Your task to perform on an android device: check the backup settings in the google photos Image 0: 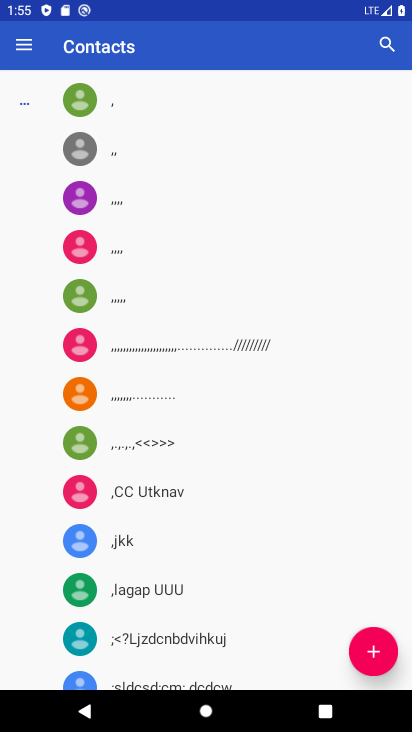
Step 0: press home button
Your task to perform on an android device: check the backup settings in the google photos Image 1: 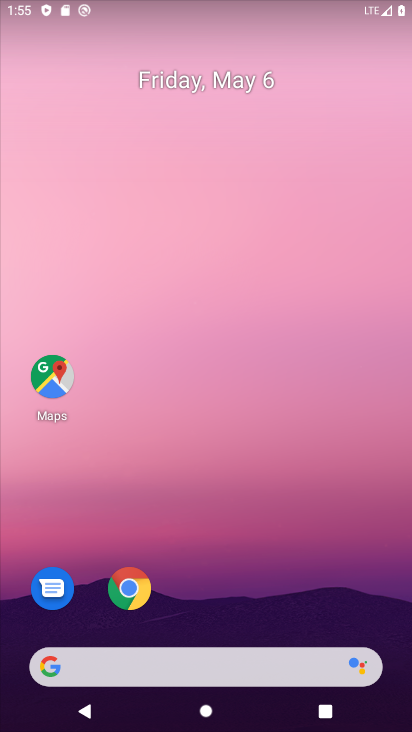
Step 1: drag from (371, 610) to (346, 162)
Your task to perform on an android device: check the backup settings in the google photos Image 2: 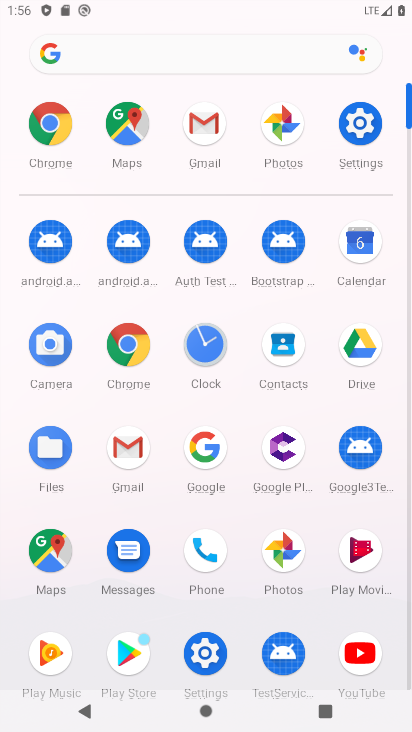
Step 2: click (275, 552)
Your task to perform on an android device: check the backup settings in the google photos Image 3: 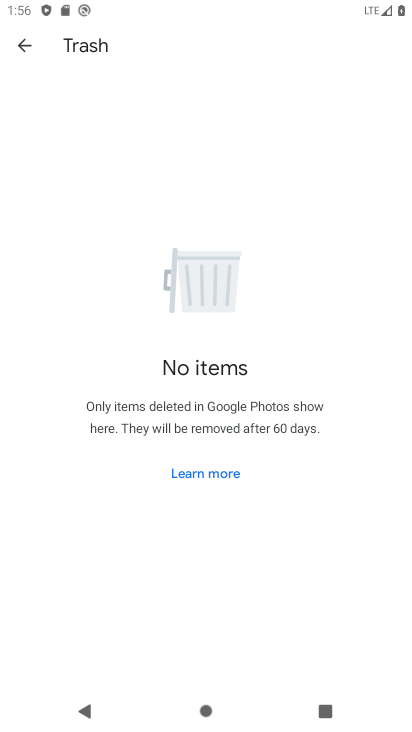
Step 3: click (28, 49)
Your task to perform on an android device: check the backup settings in the google photos Image 4: 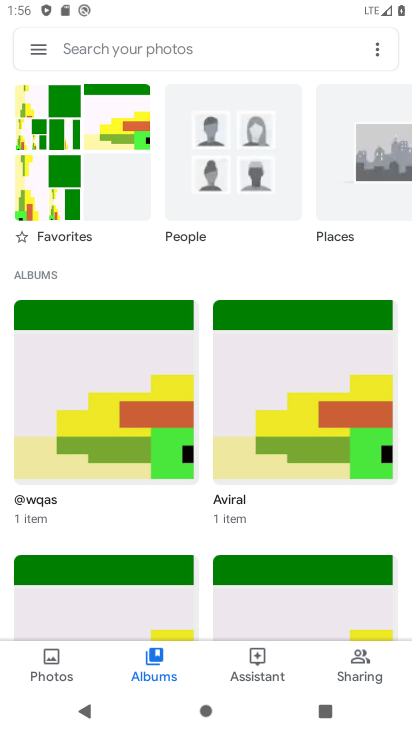
Step 4: click (34, 49)
Your task to perform on an android device: check the backup settings in the google photos Image 5: 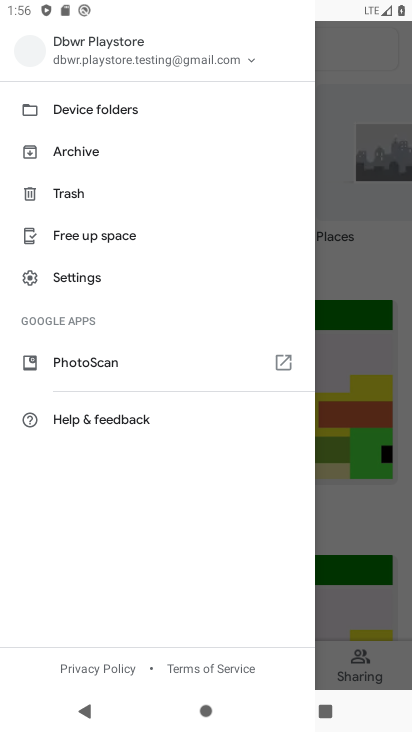
Step 5: click (81, 273)
Your task to perform on an android device: check the backup settings in the google photos Image 6: 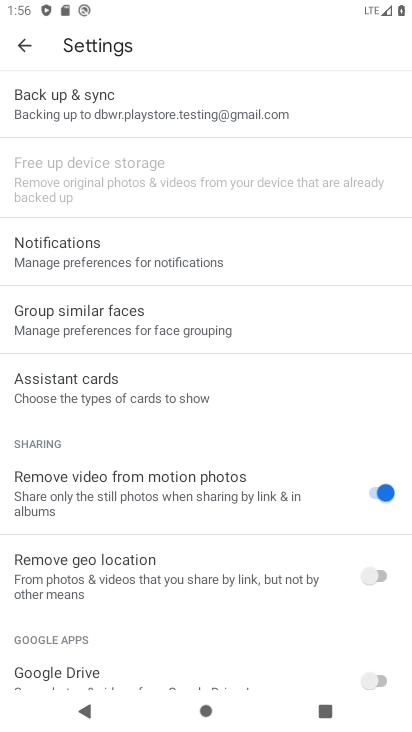
Step 6: click (135, 95)
Your task to perform on an android device: check the backup settings in the google photos Image 7: 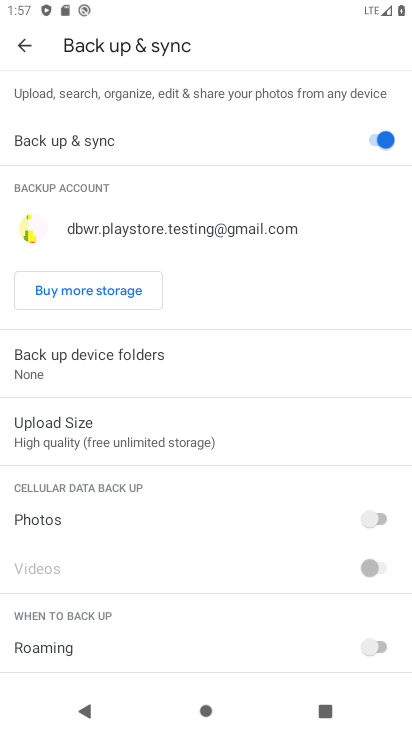
Step 7: drag from (139, 572) to (161, 240)
Your task to perform on an android device: check the backup settings in the google photos Image 8: 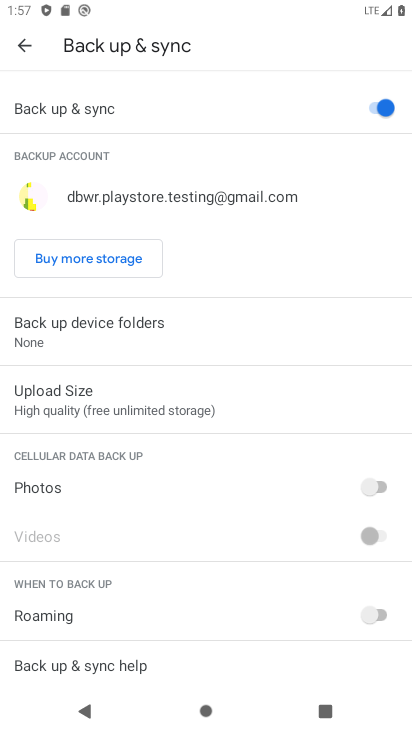
Step 8: click (148, 672)
Your task to perform on an android device: check the backup settings in the google photos Image 9: 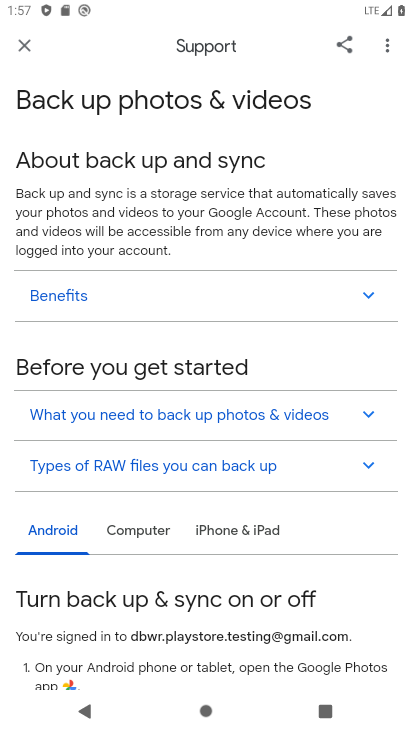
Step 9: task complete